Your task to perform on an android device: Show me recent news Image 0: 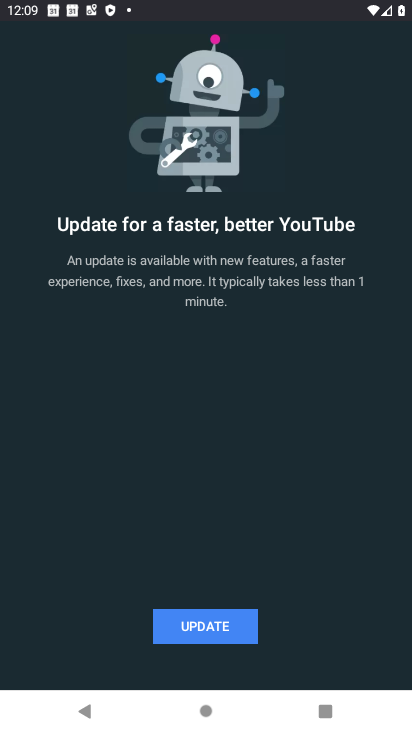
Step 0: press home button
Your task to perform on an android device: Show me recent news Image 1: 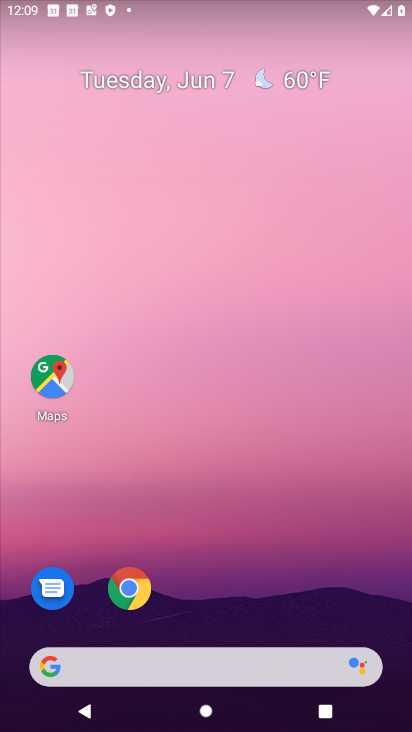
Step 1: click (273, 662)
Your task to perform on an android device: Show me recent news Image 2: 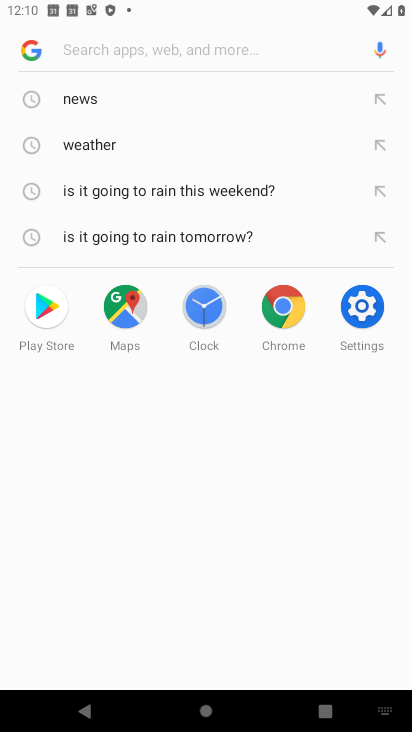
Step 2: type "recent news"
Your task to perform on an android device: Show me recent news Image 3: 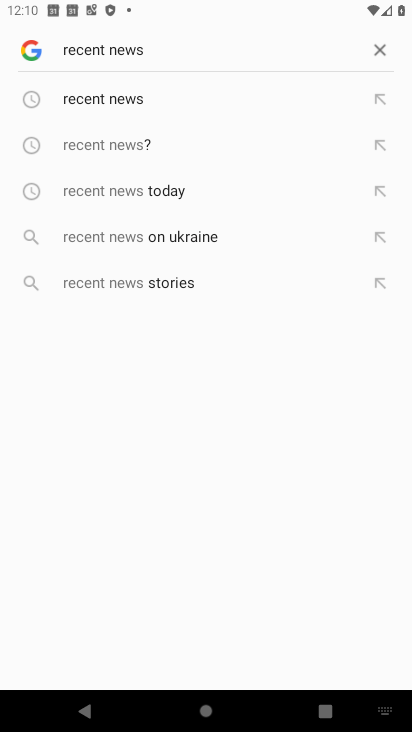
Step 3: click (118, 95)
Your task to perform on an android device: Show me recent news Image 4: 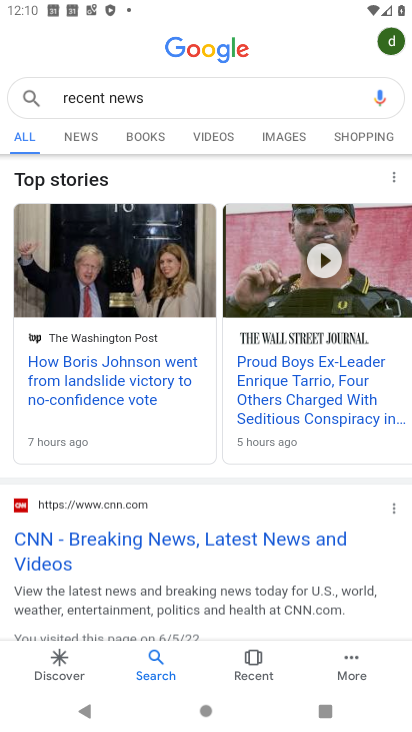
Step 4: task complete